Your task to perform on an android device: Show me popular games on the Play Store Image 0: 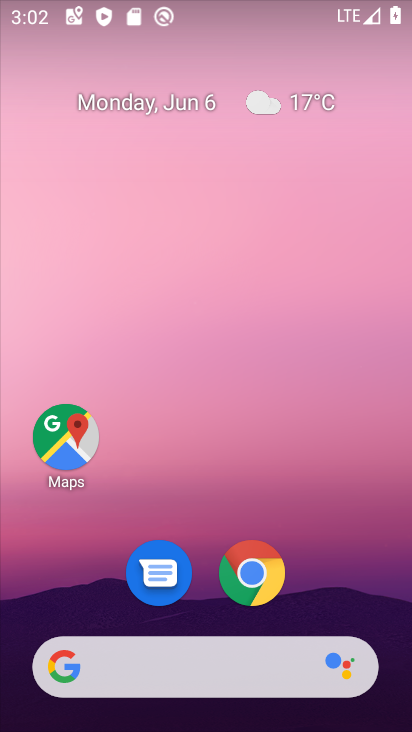
Step 0: drag from (374, 596) to (350, 229)
Your task to perform on an android device: Show me popular games on the Play Store Image 1: 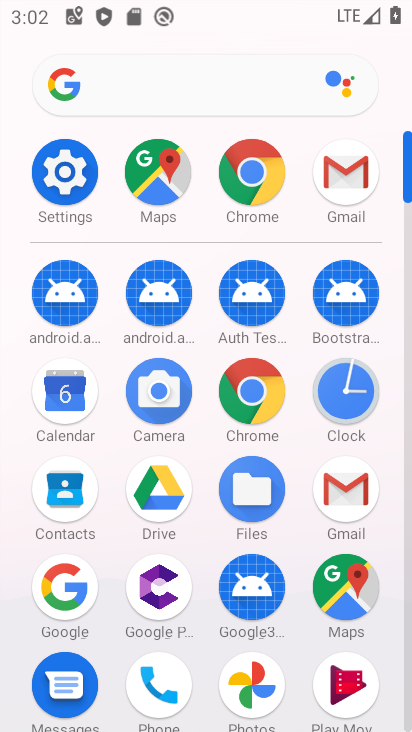
Step 1: drag from (288, 538) to (298, 275)
Your task to perform on an android device: Show me popular games on the Play Store Image 2: 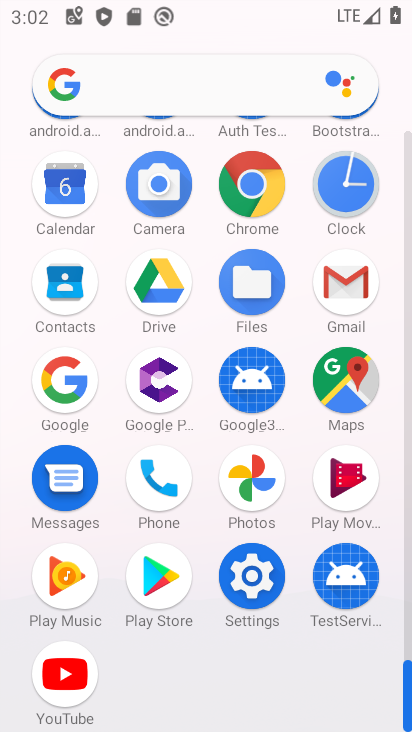
Step 2: click (169, 579)
Your task to perform on an android device: Show me popular games on the Play Store Image 3: 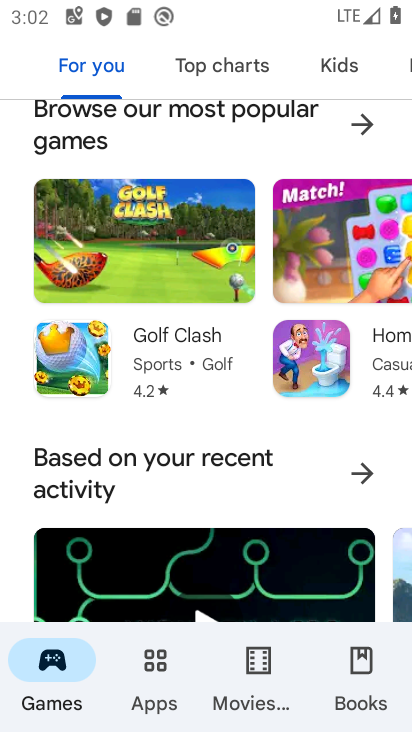
Step 3: task complete